Your task to perform on an android device: Go to Amazon Image 0: 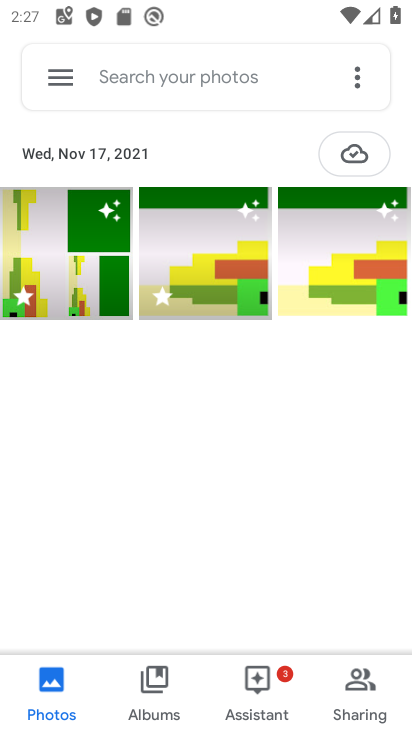
Step 0: press home button
Your task to perform on an android device: Go to Amazon Image 1: 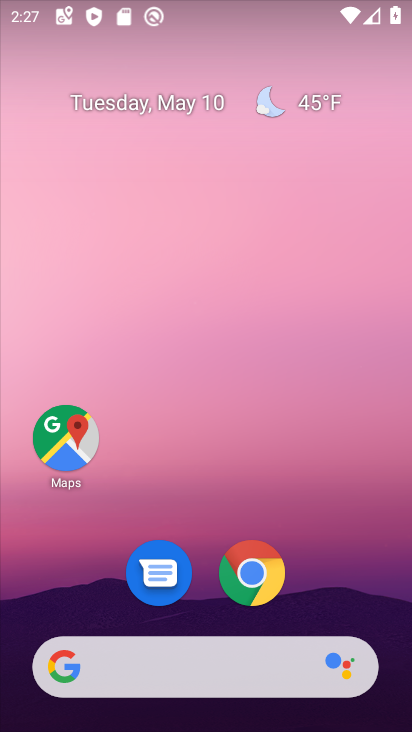
Step 1: click (201, 610)
Your task to perform on an android device: Go to Amazon Image 2: 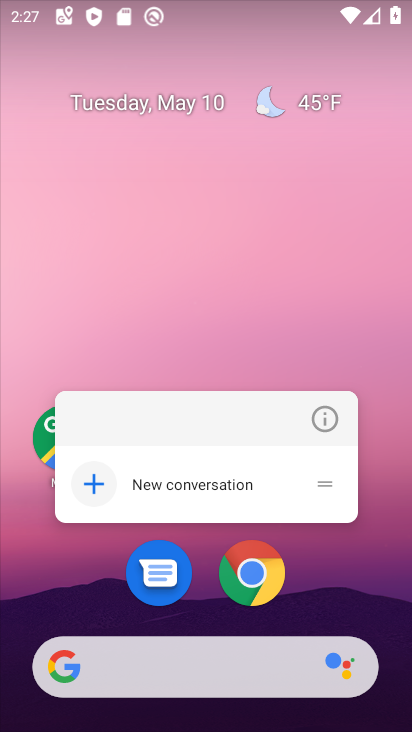
Step 2: click (263, 590)
Your task to perform on an android device: Go to Amazon Image 3: 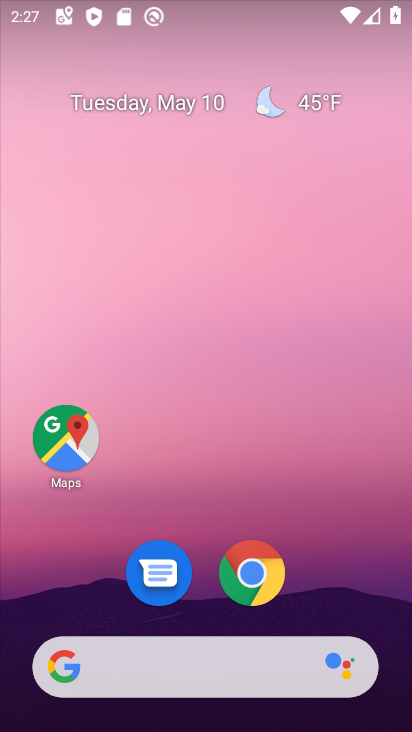
Step 3: click (272, 558)
Your task to perform on an android device: Go to Amazon Image 4: 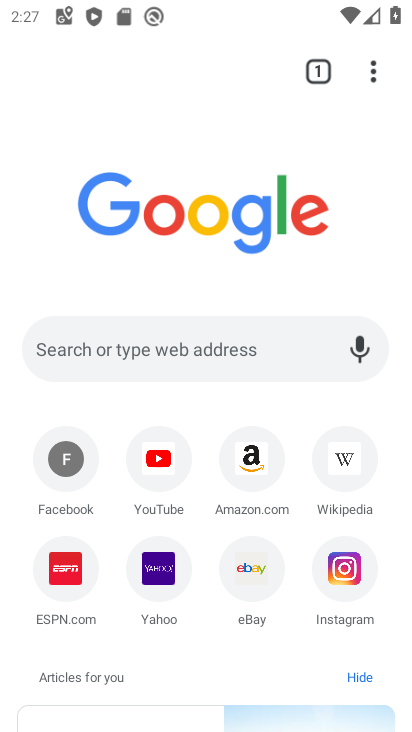
Step 4: click (250, 465)
Your task to perform on an android device: Go to Amazon Image 5: 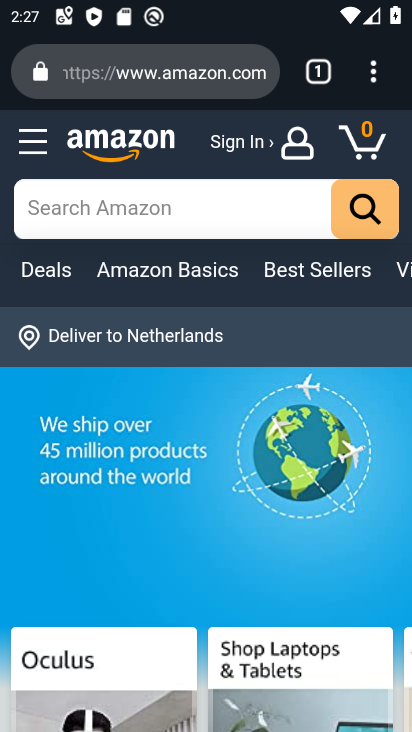
Step 5: task complete